Your task to perform on an android device: add a label to a message in the gmail app Image 0: 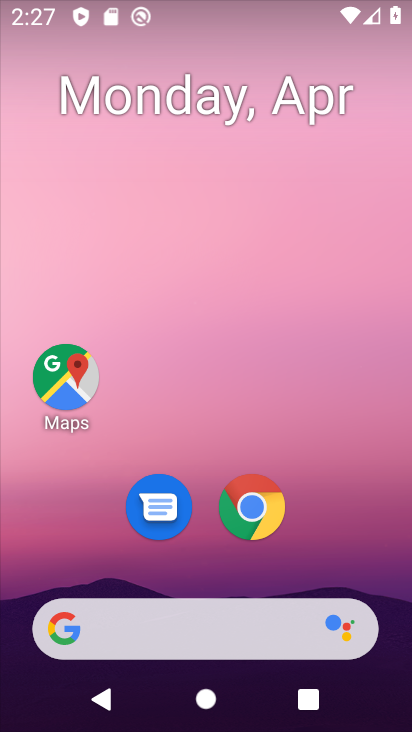
Step 0: drag from (391, 633) to (311, 101)
Your task to perform on an android device: add a label to a message in the gmail app Image 1: 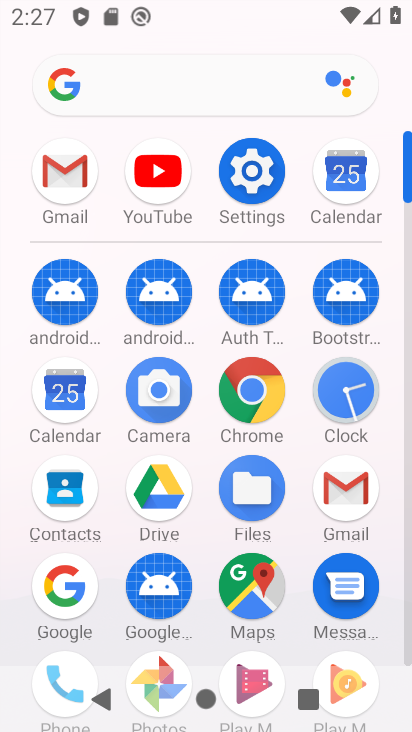
Step 1: click (406, 649)
Your task to perform on an android device: add a label to a message in the gmail app Image 2: 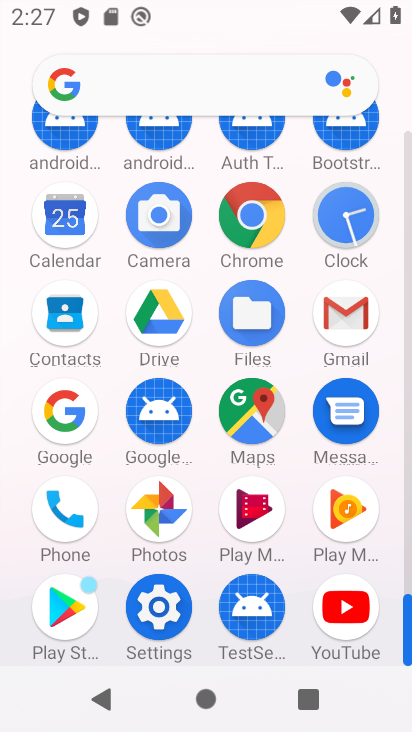
Step 2: click (340, 310)
Your task to perform on an android device: add a label to a message in the gmail app Image 3: 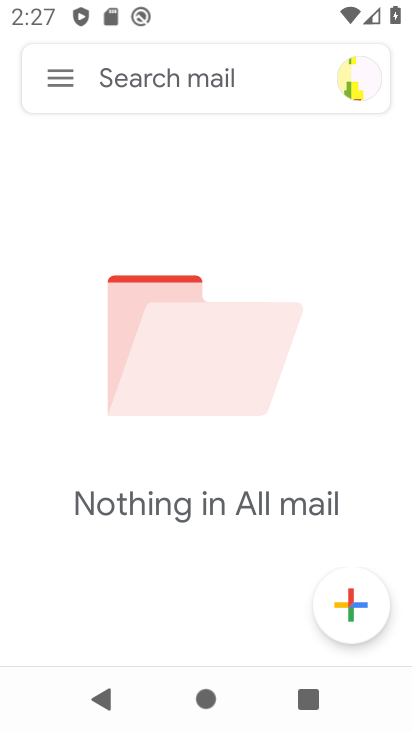
Step 3: click (63, 75)
Your task to perform on an android device: add a label to a message in the gmail app Image 4: 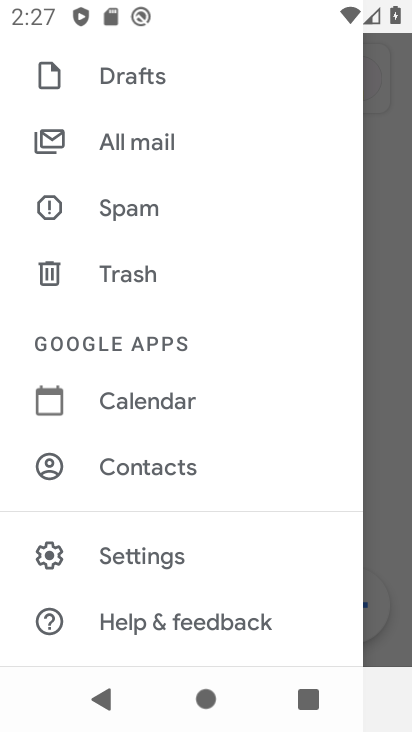
Step 4: click (148, 138)
Your task to perform on an android device: add a label to a message in the gmail app Image 5: 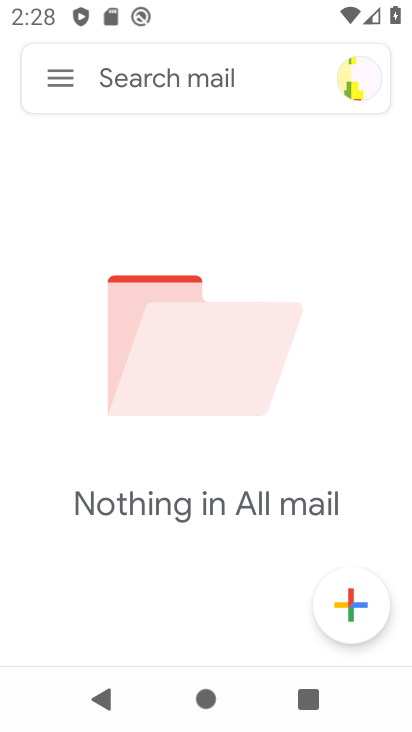
Step 5: task complete